Your task to perform on an android device: Open notification settings Image 0: 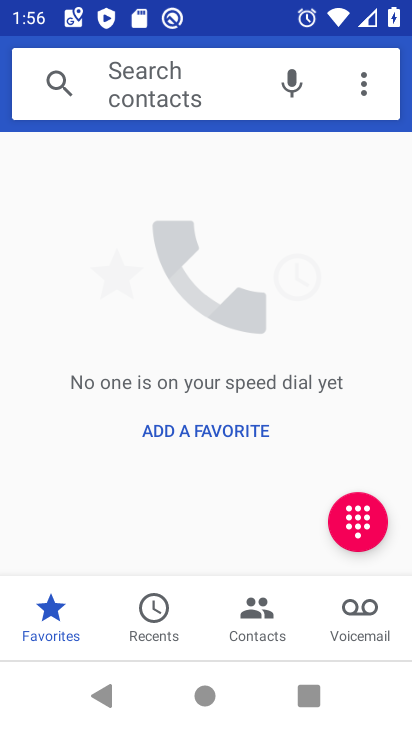
Step 0: press home button
Your task to perform on an android device: Open notification settings Image 1: 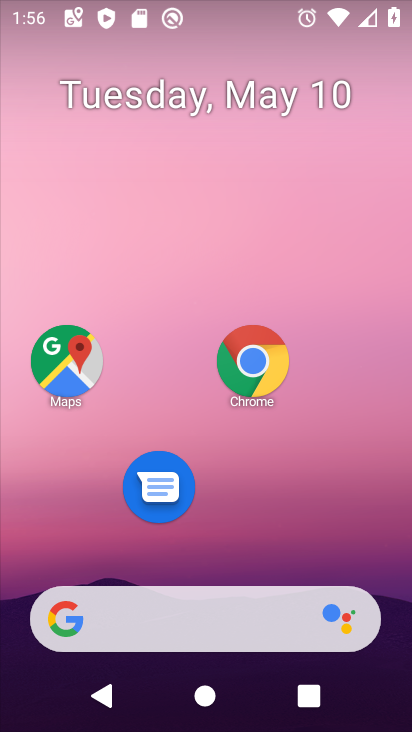
Step 1: drag from (355, 461) to (350, 192)
Your task to perform on an android device: Open notification settings Image 2: 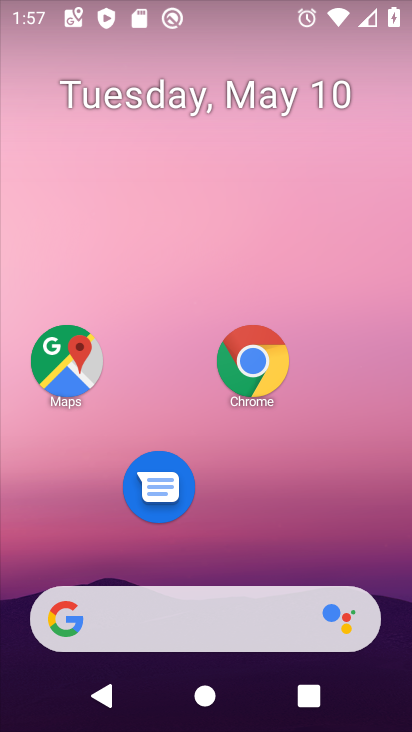
Step 2: drag from (280, 482) to (124, 79)
Your task to perform on an android device: Open notification settings Image 3: 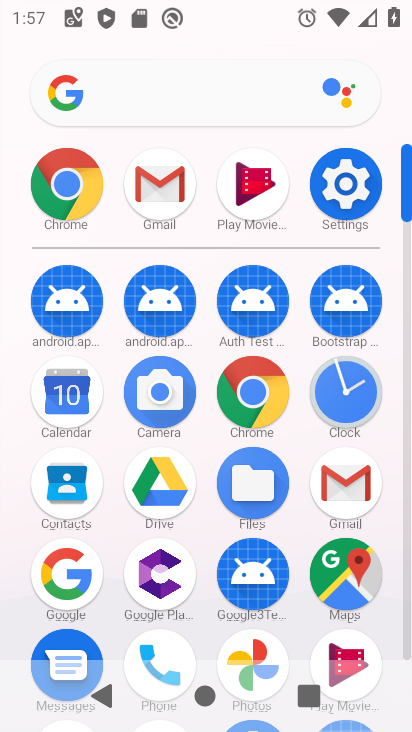
Step 3: click (321, 170)
Your task to perform on an android device: Open notification settings Image 4: 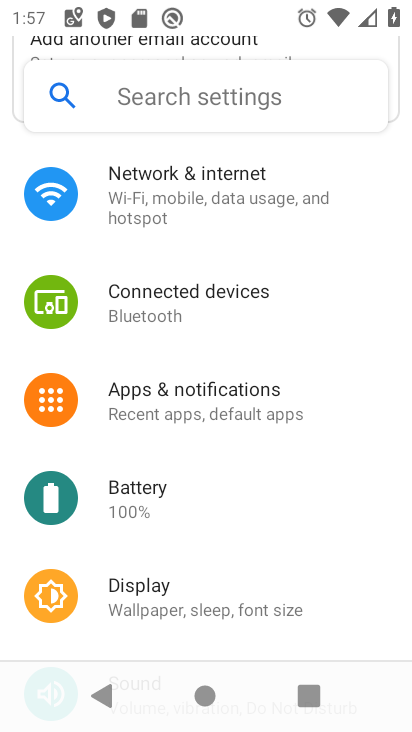
Step 4: click (251, 372)
Your task to perform on an android device: Open notification settings Image 5: 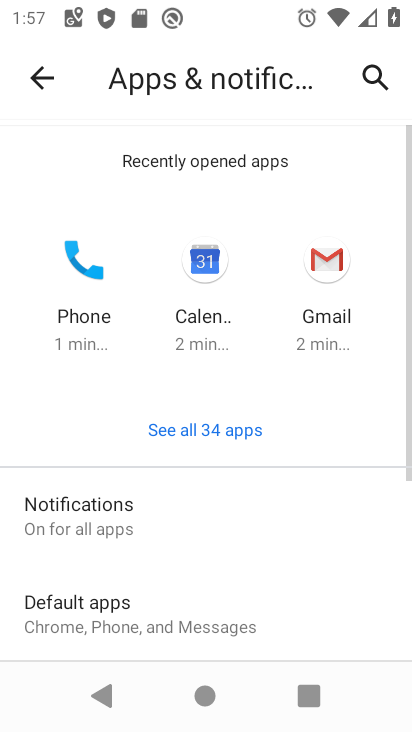
Step 5: task complete